Your task to perform on an android device: turn on the 12-hour format for clock Image 0: 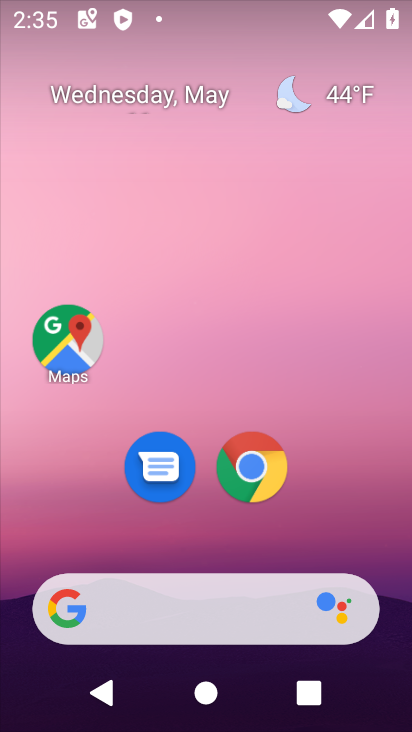
Step 0: drag from (381, 650) to (233, 179)
Your task to perform on an android device: turn on the 12-hour format for clock Image 1: 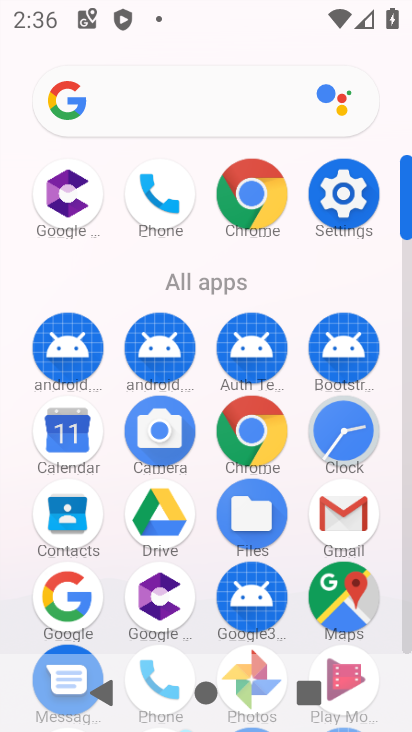
Step 1: click (346, 417)
Your task to perform on an android device: turn on the 12-hour format for clock Image 2: 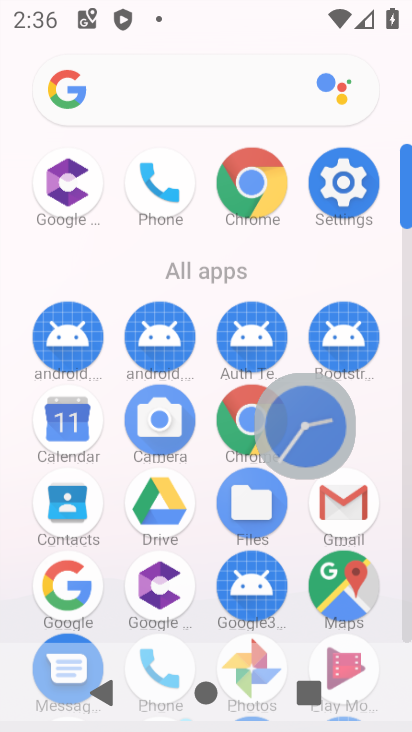
Step 2: click (347, 432)
Your task to perform on an android device: turn on the 12-hour format for clock Image 3: 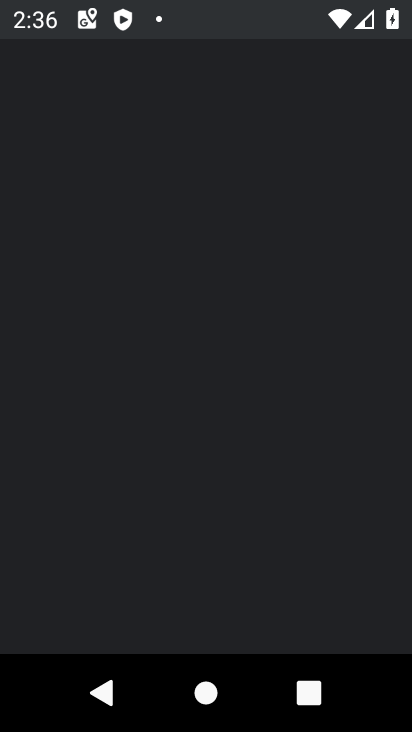
Step 3: click (343, 427)
Your task to perform on an android device: turn on the 12-hour format for clock Image 4: 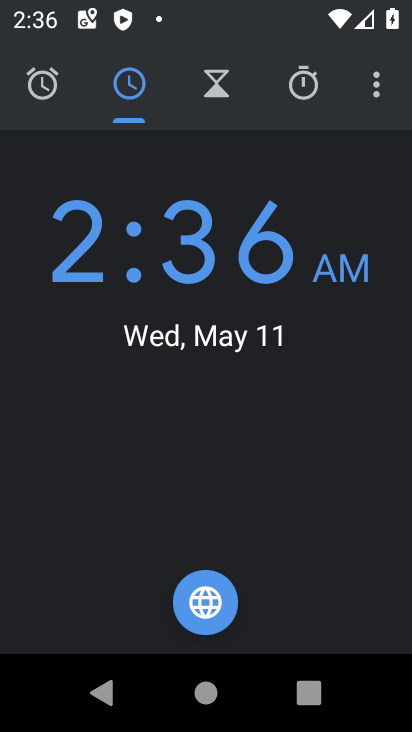
Step 4: click (374, 91)
Your task to perform on an android device: turn on the 12-hour format for clock Image 5: 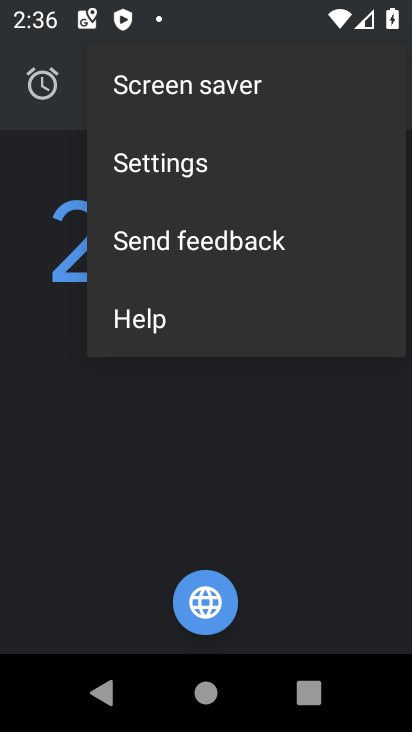
Step 5: click (170, 167)
Your task to perform on an android device: turn on the 12-hour format for clock Image 6: 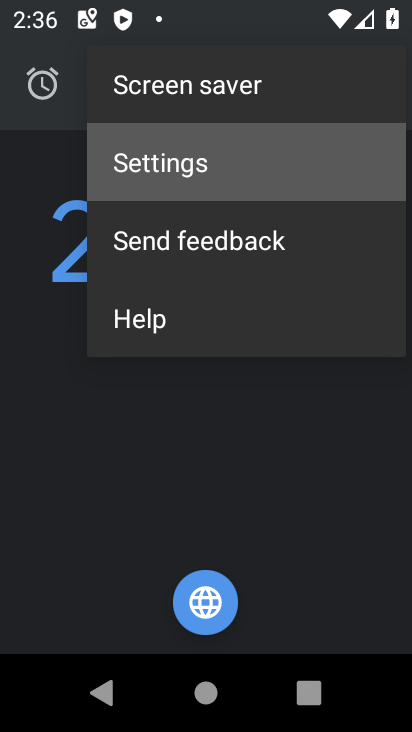
Step 6: click (170, 164)
Your task to perform on an android device: turn on the 12-hour format for clock Image 7: 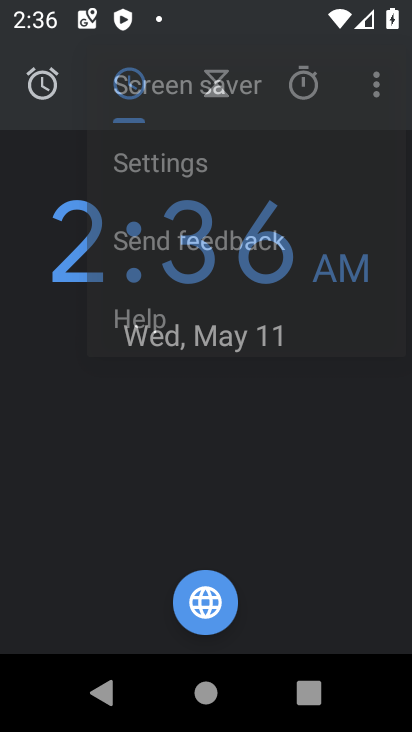
Step 7: click (170, 164)
Your task to perform on an android device: turn on the 12-hour format for clock Image 8: 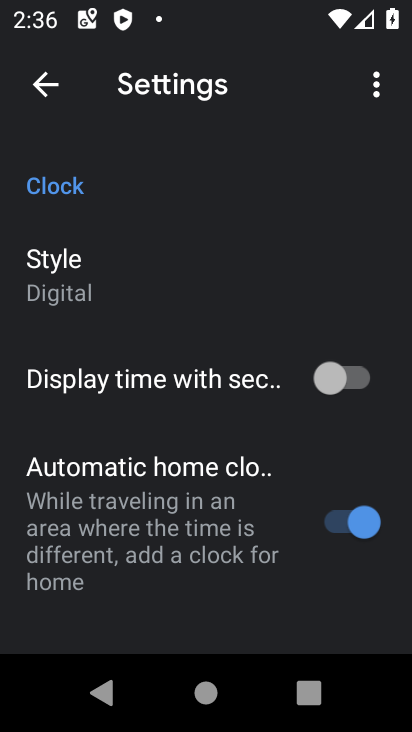
Step 8: drag from (243, 522) to (200, 205)
Your task to perform on an android device: turn on the 12-hour format for clock Image 9: 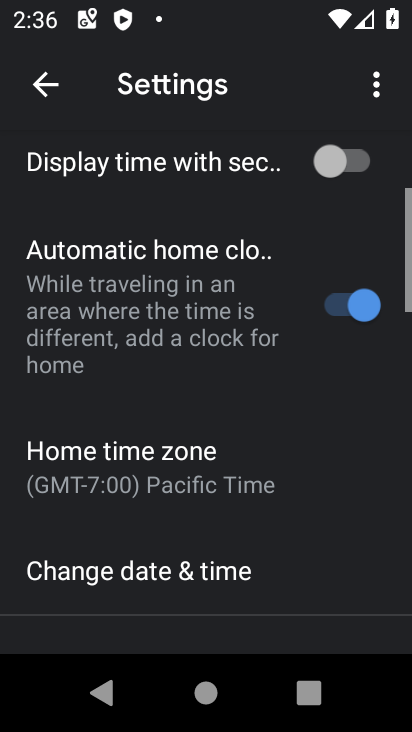
Step 9: drag from (217, 428) to (185, 218)
Your task to perform on an android device: turn on the 12-hour format for clock Image 10: 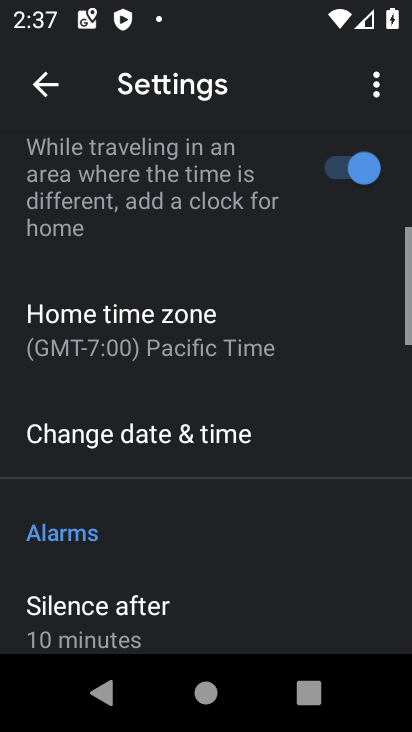
Step 10: drag from (249, 421) to (259, 203)
Your task to perform on an android device: turn on the 12-hour format for clock Image 11: 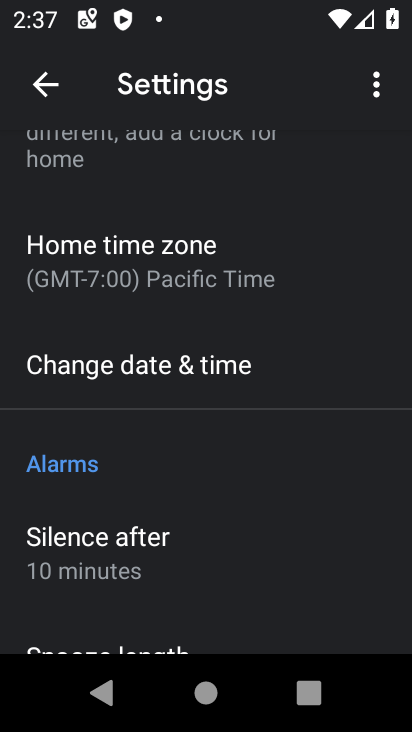
Step 11: click (158, 378)
Your task to perform on an android device: turn on the 12-hour format for clock Image 12: 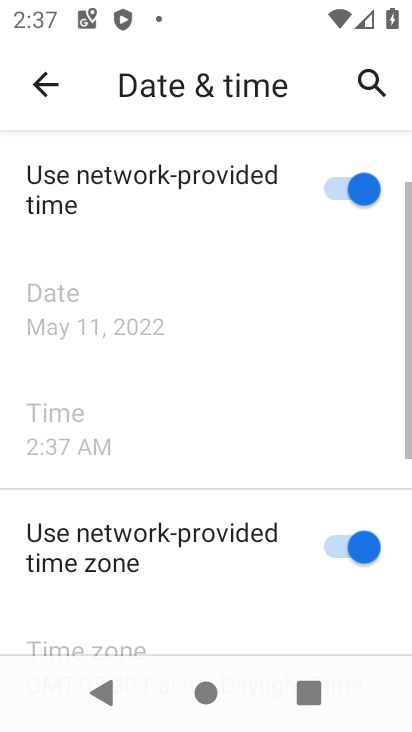
Step 12: task complete